Your task to perform on an android device: Open Google Image 0: 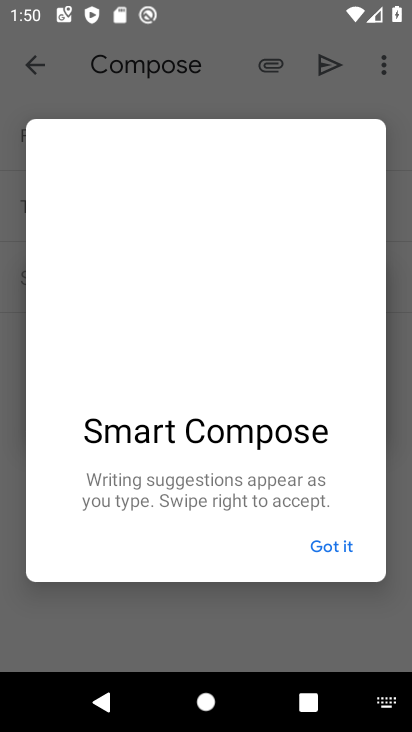
Step 0: press home button
Your task to perform on an android device: Open Google Image 1: 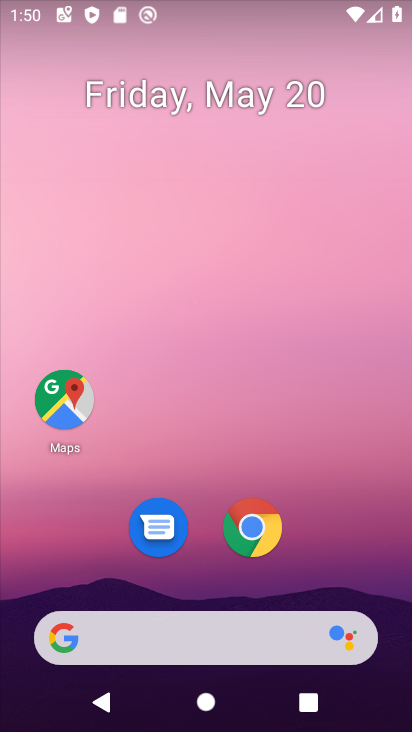
Step 1: drag from (140, 696) to (194, 164)
Your task to perform on an android device: Open Google Image 2: 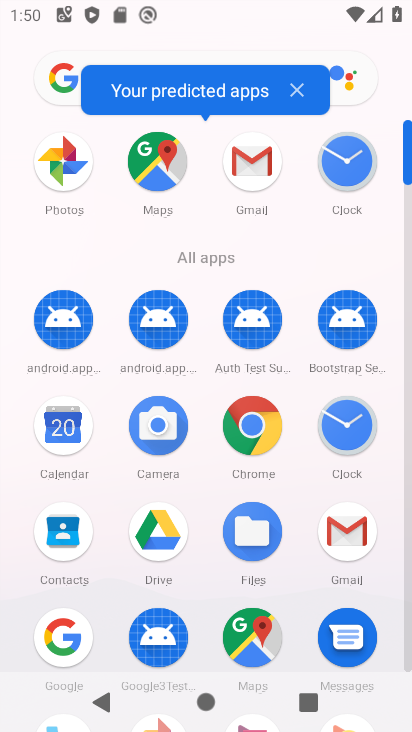
Step 2: click (52, 623)
Your task to perform on an android device: Open Google Image 3: 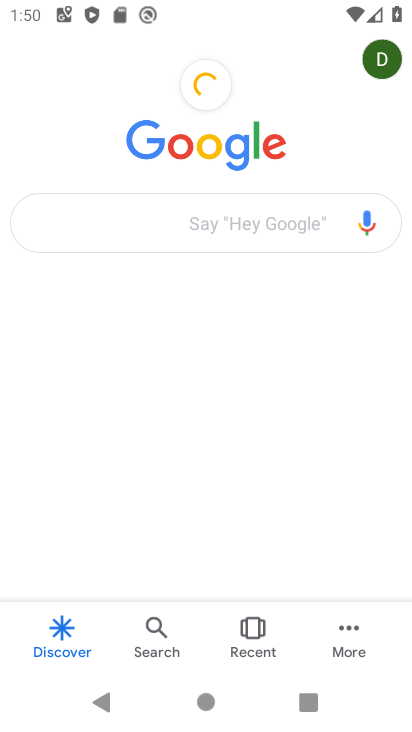
Step 3: task complete